Your task to perform on an android device: turn off smart reply in the gmail app Image 0: 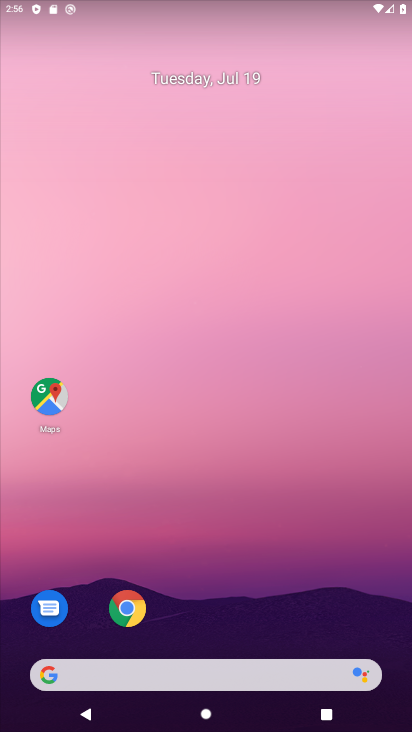
Step 0: drag from (212, 551) to (292, 94)
Your task to perform on an android device: turn off smart reply in the gmail app Image 1: 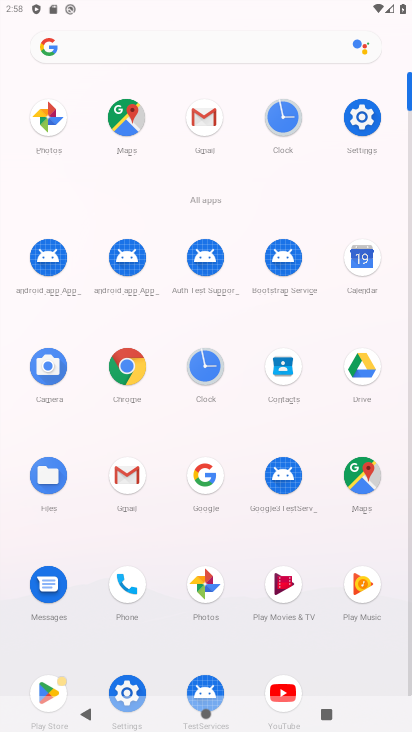
Step 1: click (211, 116)
Your task to perform on an android device: turn off smart reply in the gmail app Image 2: 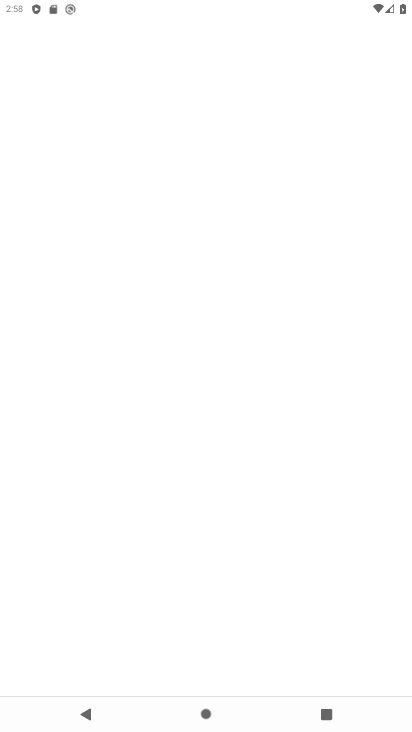
Step 2: task complete